Your task to perform on an android device: change alarm snooze length Image 0: 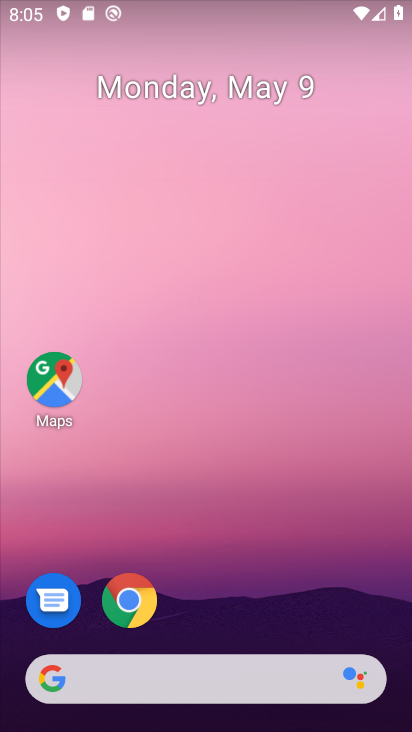
Step 0: drag from (257, 550) to (223, 12)
Your task to perform on an android device: change alarm snooze length Image 1: 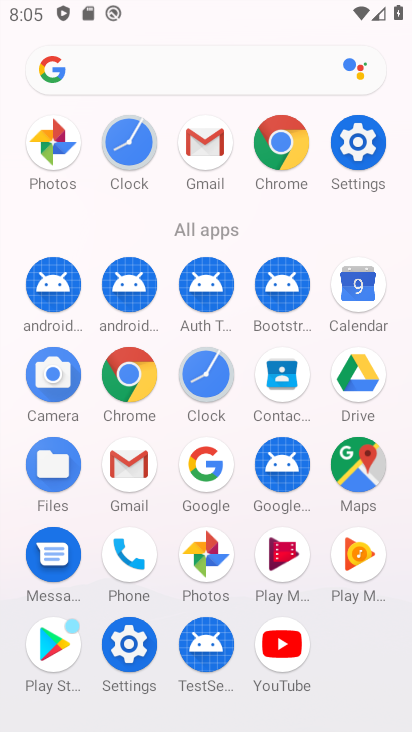
Step 1: drag from (2, 617) to (8, 349)
Your task to perform on an android device: change alarm snooze length Image 2: 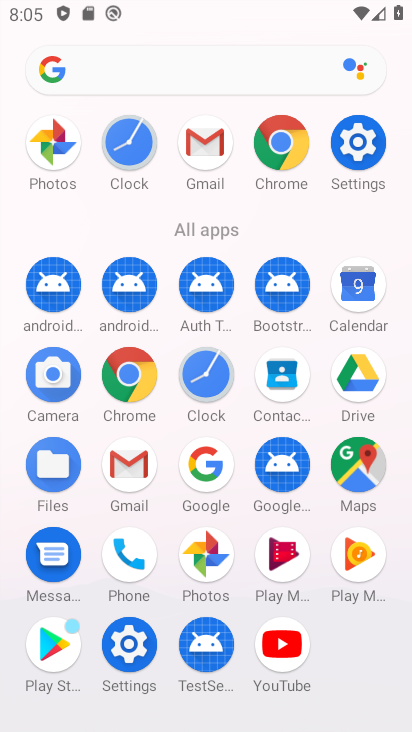
Step 2: click (200, 371)
Your task to perform on an android device: change alarm snooze length Image 3: 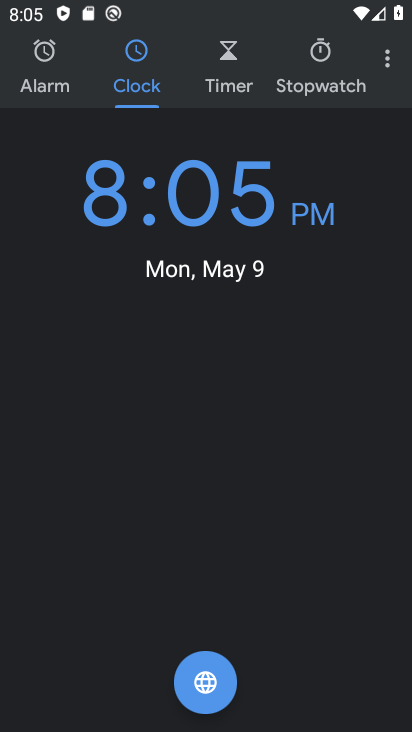
Step 3: drag from (379, 61) to (346, 106)
Your task to perform on an android device: change alarm snooze length Image 4: 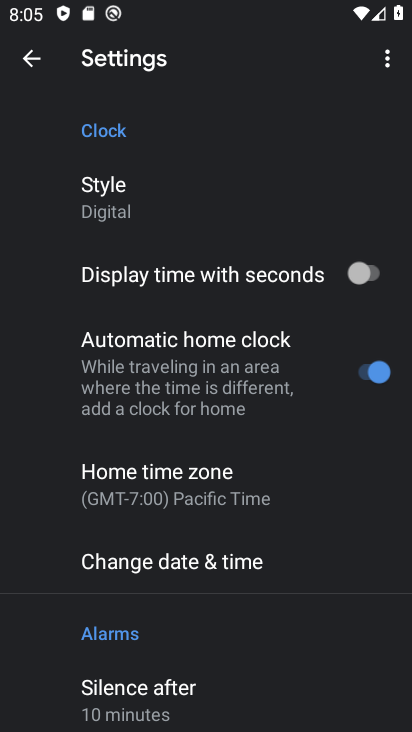
Step 4: drag from (240, 511) to (241, 146)
Your task to perform on an android device: change alarm snooze length Image 5: 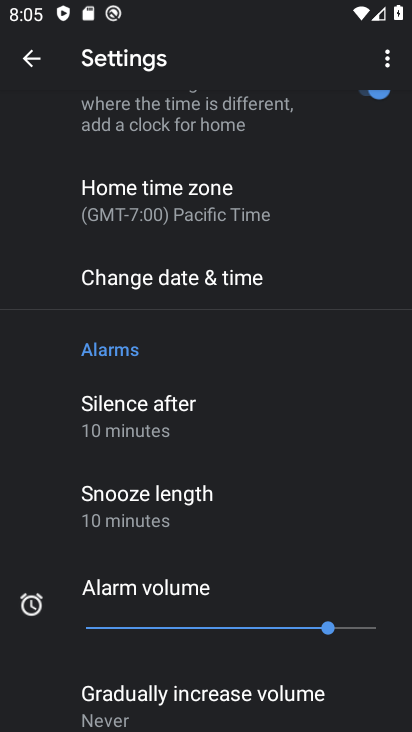
Step 5: click (182, 511)
Your task to perform on an android device: change alarm snooze length Image 6: 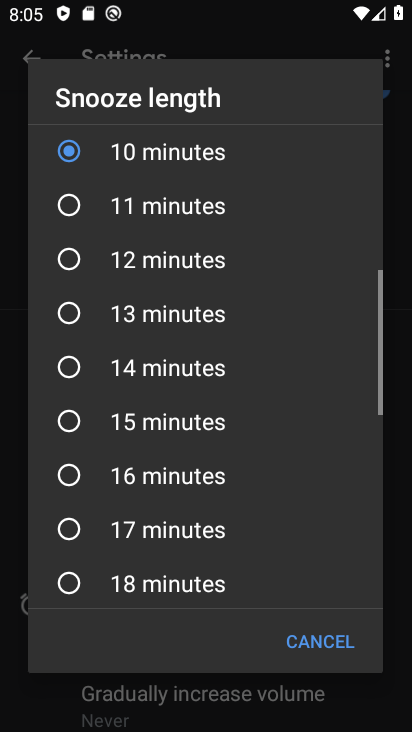
Step 6: click (145, 213)
Your task to perform on an android device: change alarm snooze length Image 7: 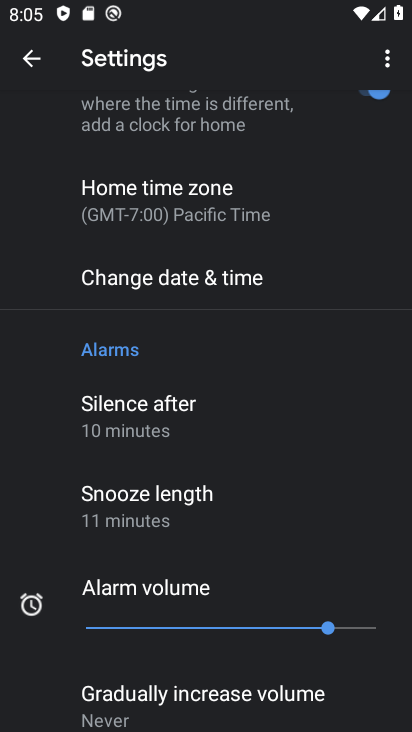
Step 7: task complete